Your task to perform on an android device: change the clock display to analog Image 0: 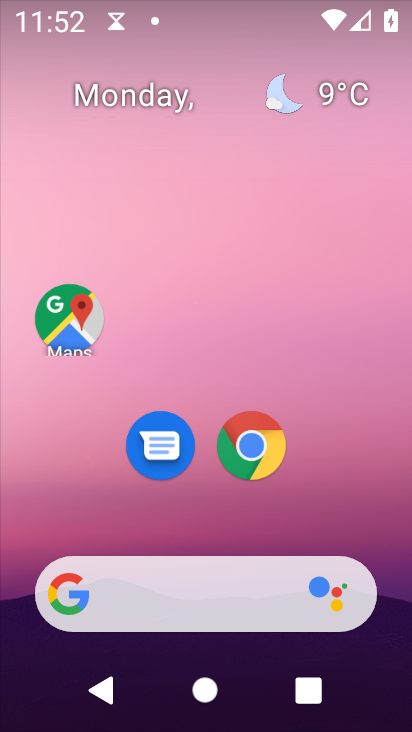
Step 0: drag from (256, 610) to (213, 7)
Your task to perform on an android device: change the clock display to analog Image 1: 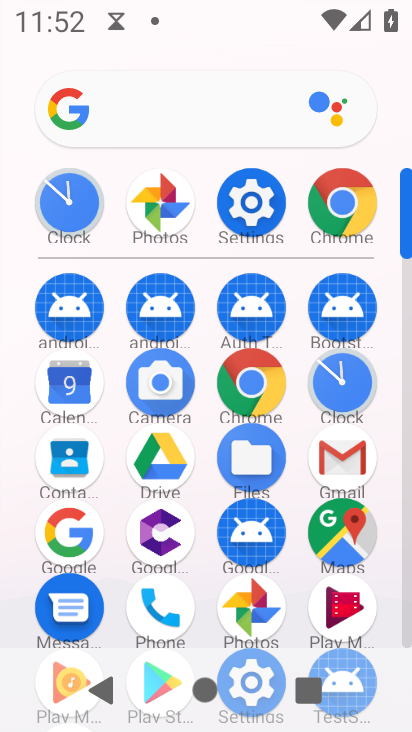
Step 1: click (343, 382)
Your task to perform on an android device: change the clock display to analog Image 2: 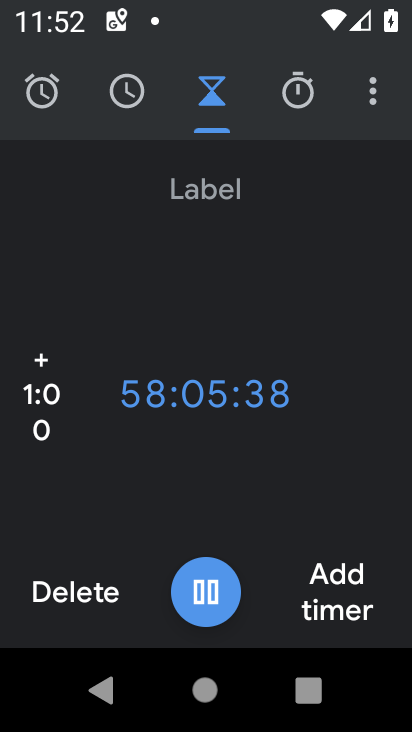
Step 2: click (339, 679)
Your task to perform on an android device: change the clock display to analog Image 3: 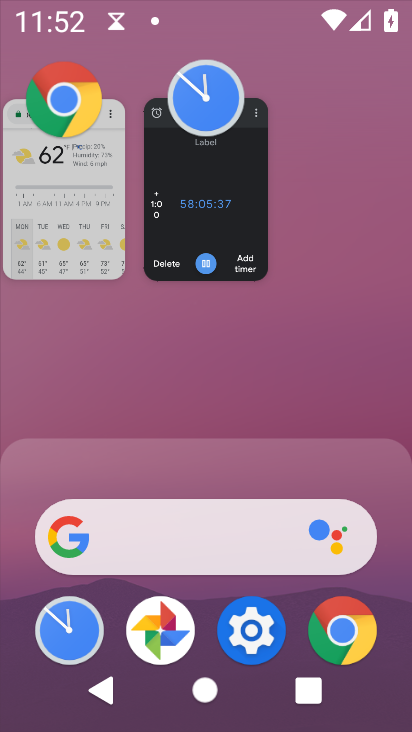
Step 3: click (185, 199)
Your task to perform on an android device: change the clock display to analog Image 4: 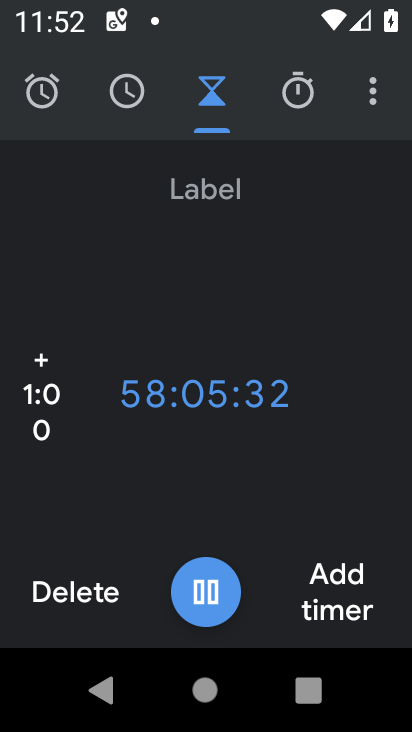
Step 4: click (357, 90)
Your task to perform on an android device: change the clock display to analog Image 5: 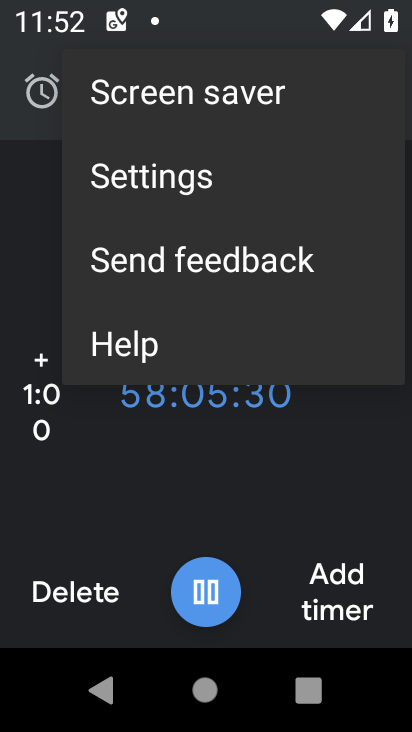
Step 5: click (254, 187)
Your task to perform on an android device: change the clock display to analog Image 6: 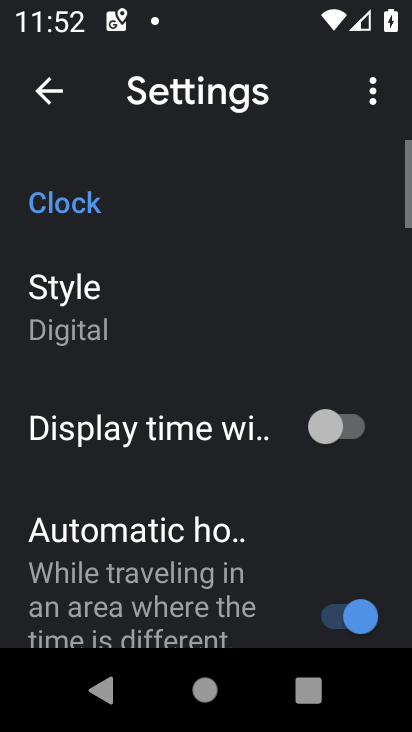
Step 6: click (115, 313)
Your task to perform on an android device: change the clock display to analog Image 7: 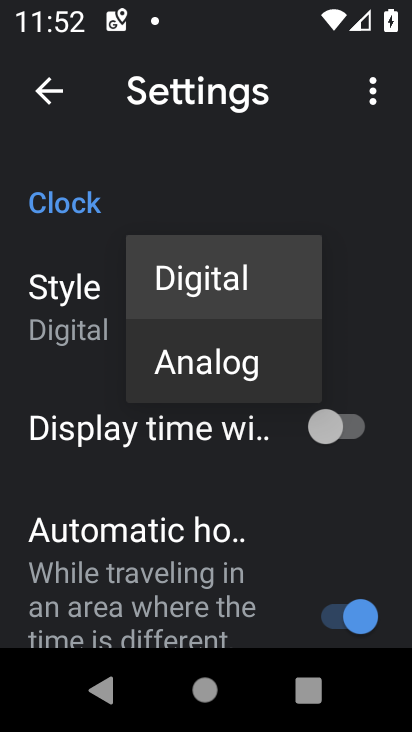
Step 7: click (170, 357)
Your task to perform on an android device: change the clock display to analog Image 8: 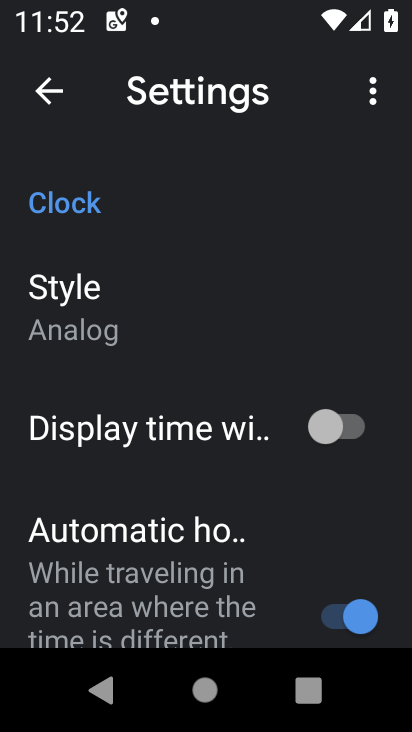
Step 8: task complete